Your task to perform on an android device: Open location settings Image 0: 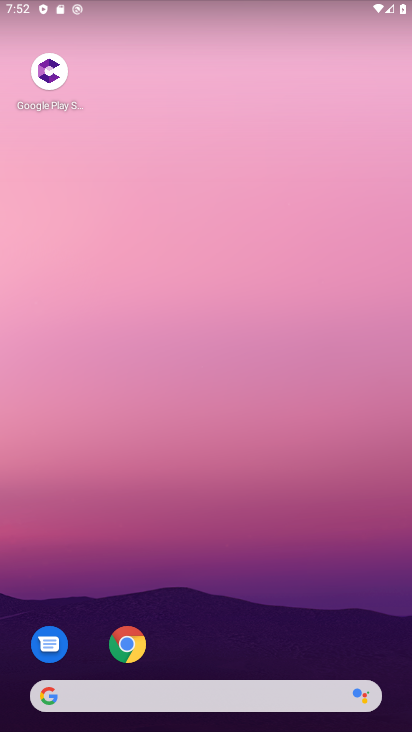
Step 0: drag from (246, 528) to (242, 173)
Your task to perform on an android device: Open location settings Image 1: 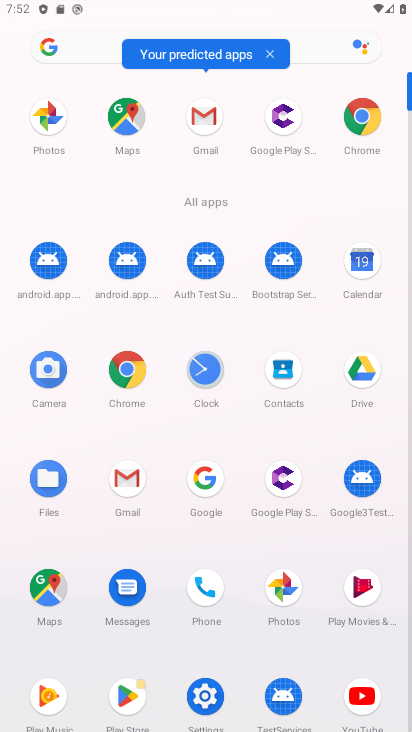
Step 1: click (204, 694)
Your task to perform on an android device: Open location settings Image 2: 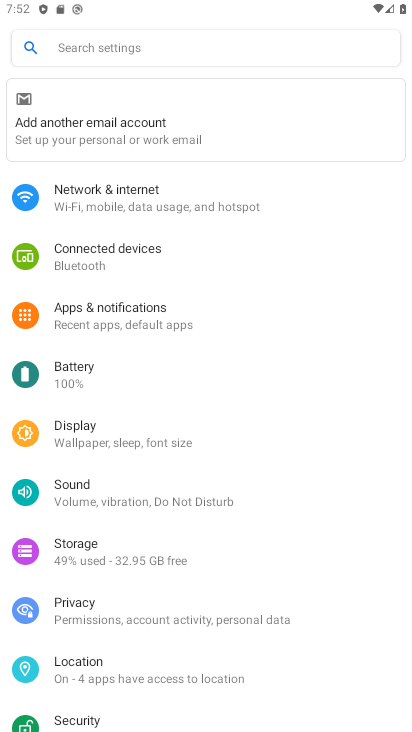
Step 2: click (121, 664)
Your task to perform on an android device: Open location settings Image 3: 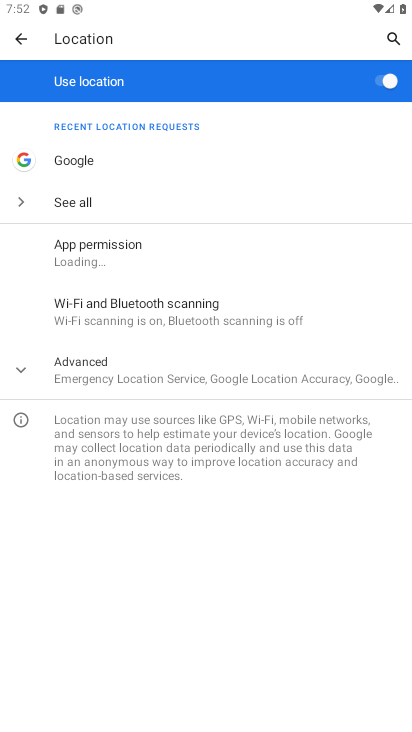
Step 3: task complete